Your task to perform on an android device: toggle sleep mode Image 0: 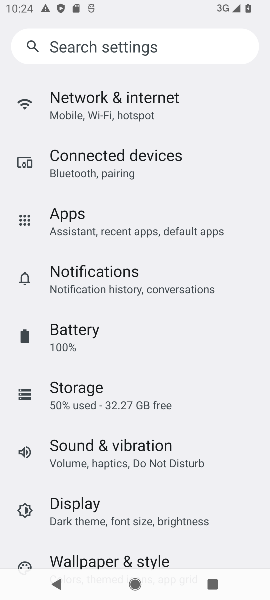
Step 0: click (131, 507)
Your task to perform on an android device: toggle sleep mode Image 1: 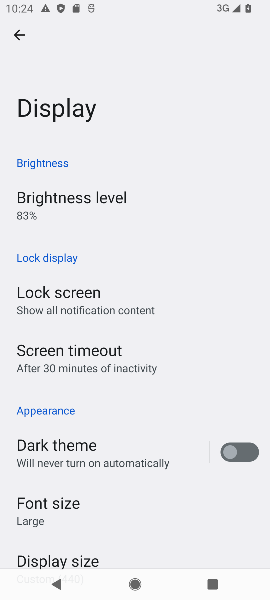
Step 1: task complete